Your task to perform on an android device: set an alarm Image 0: 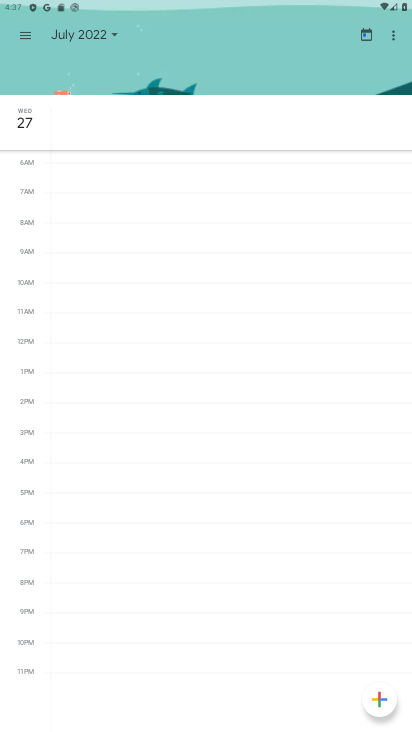
Step 0: press home button
Your task to perform on an android device: set an alarm Image 1: 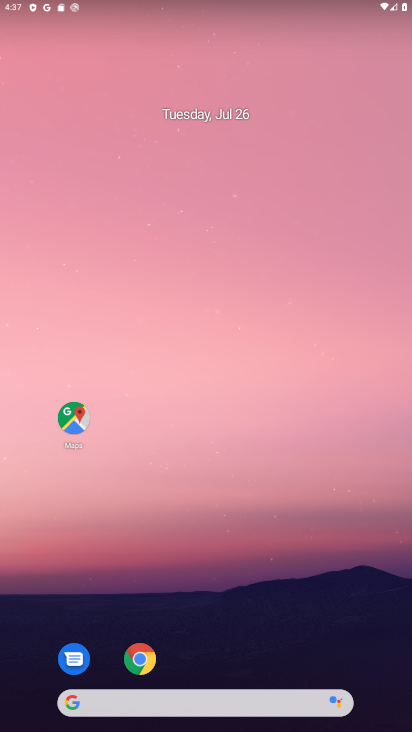
Step 1: drag from (210, 660) to (264, 0)
Your task to perform on an android device: set an alarm Image 2: 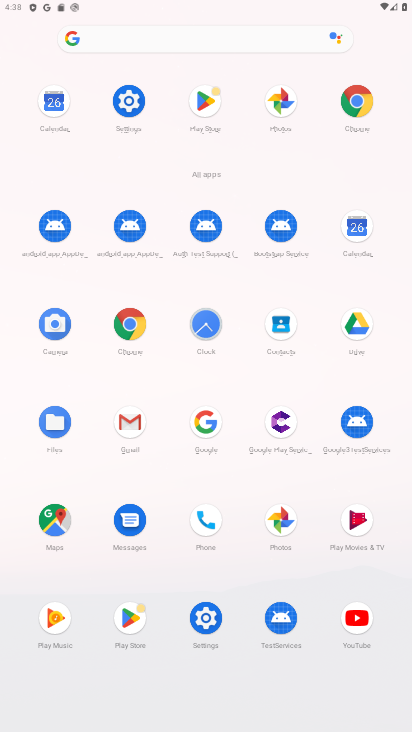
Step 2: click (204, 315)
Your task to perform on an android device: set an alarm Image 3: 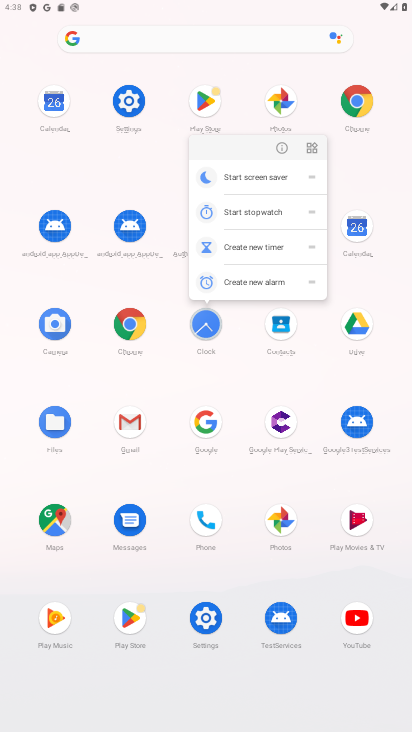
Step 3: click (201, 319)
Your task to perform on an android device: set an alarm Image 4: 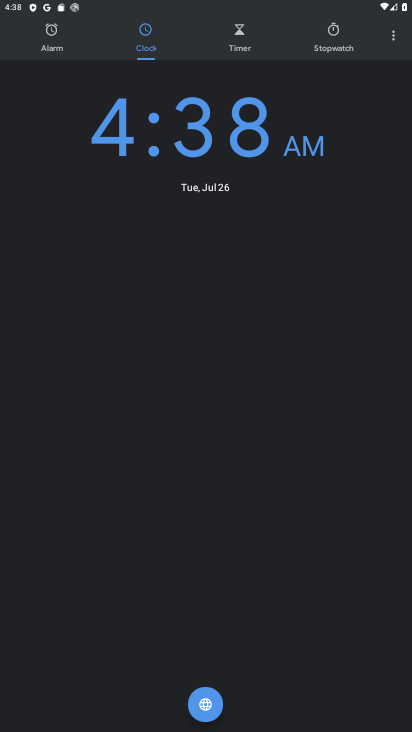
Step 4: click (62, 35)
Your task to perform on an android device: set an alarm Image 5: 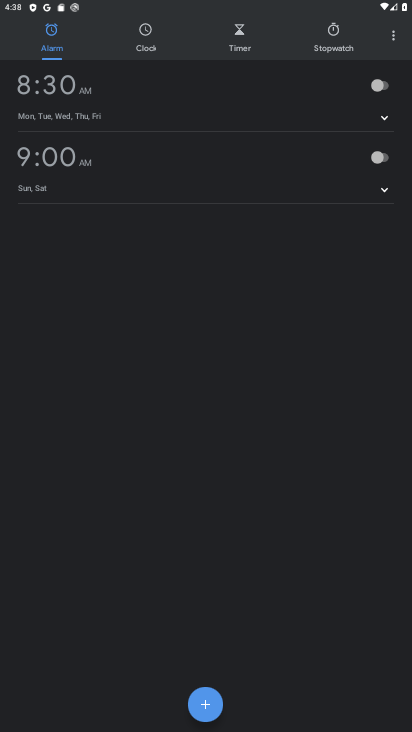
Step 5: click (372, 88)
Your task to perform on an android device: set an alarm Image 6: 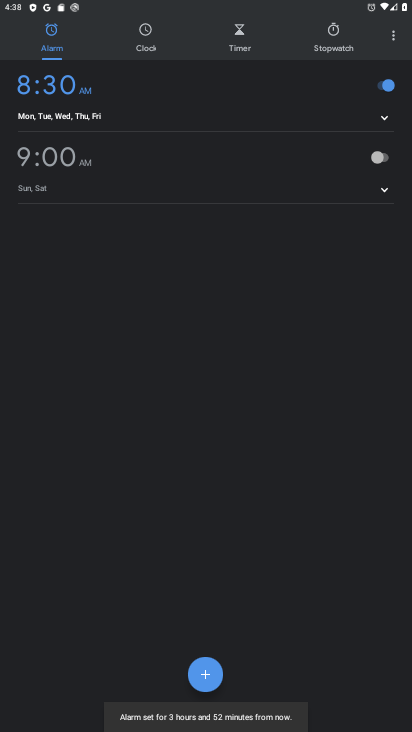
Step 6: click (383, 151)
Your task to perform on an android device: set an alarm Image 7: 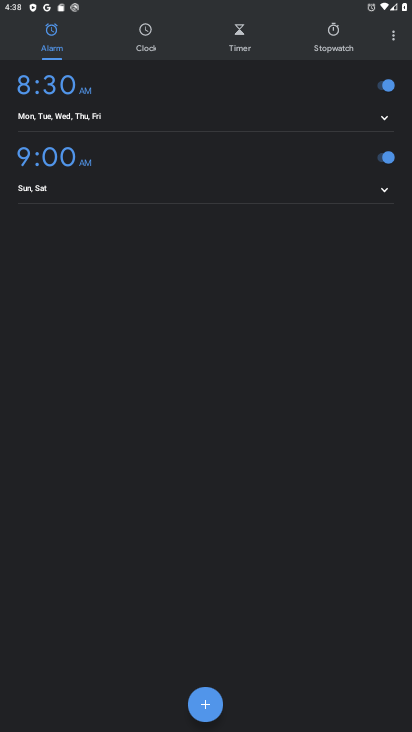
Step 7: task complete